Your task to perform on an android device: check storage Image 0: 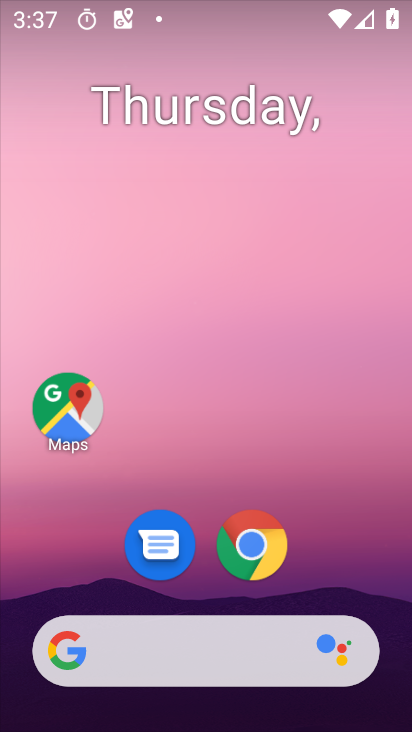
Step 0: drag from (224, 725) to (199, 81)
Your task to perform on an android device: check storage Image 1: 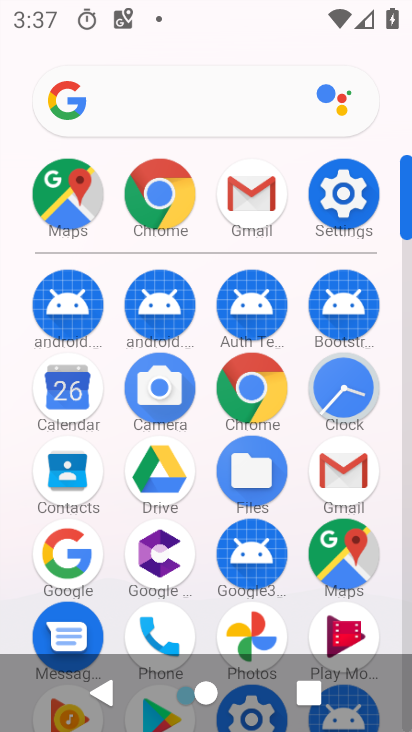
Step 1: click (339, 189)
Your task to perform on an android device: check storage Image 2: 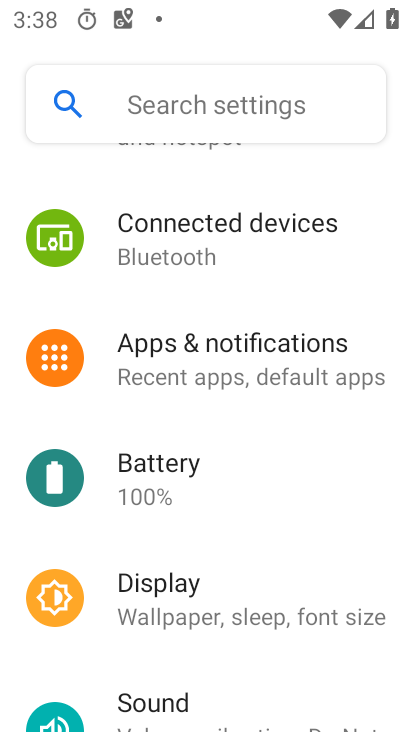
Step 2: drag from (190, 686) to (193, 440)
Your task to perform on an android device: check storage Image 3: 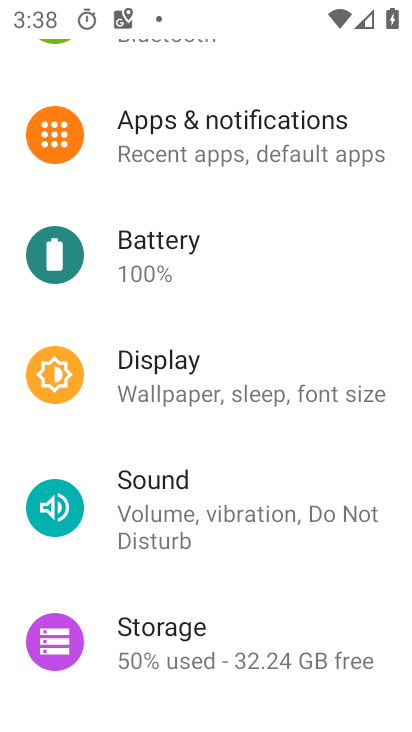
Step 3: click (158, 637)
Your task to perform on an android device: check storage Image 4: 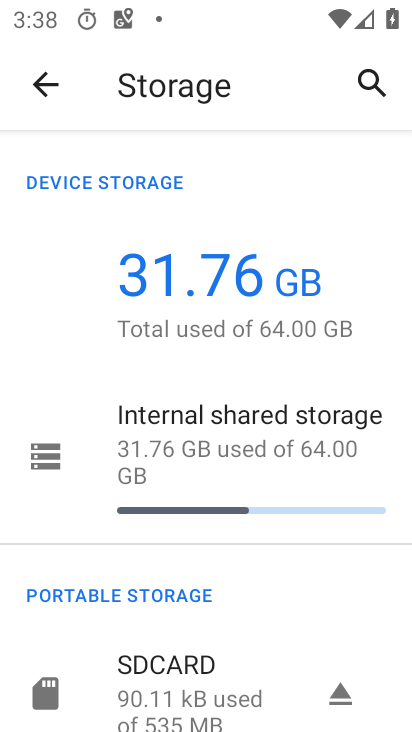
Step 4: task complete